Your task to perform on an android device: all mails in gmail Image 0: 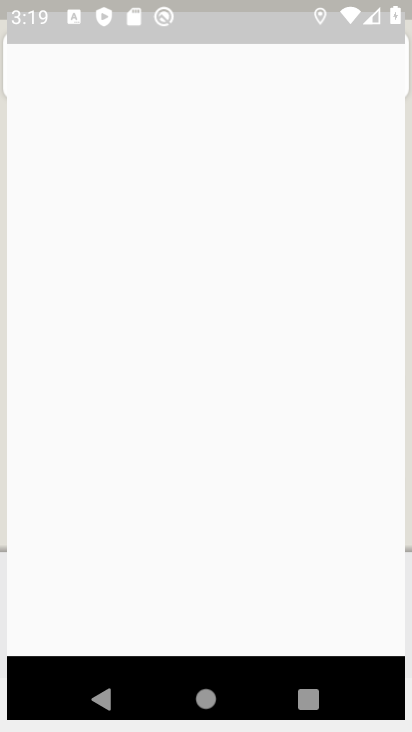
Step 0: press home button
Your task to perform on an android device: all mails in gmail Image 1: 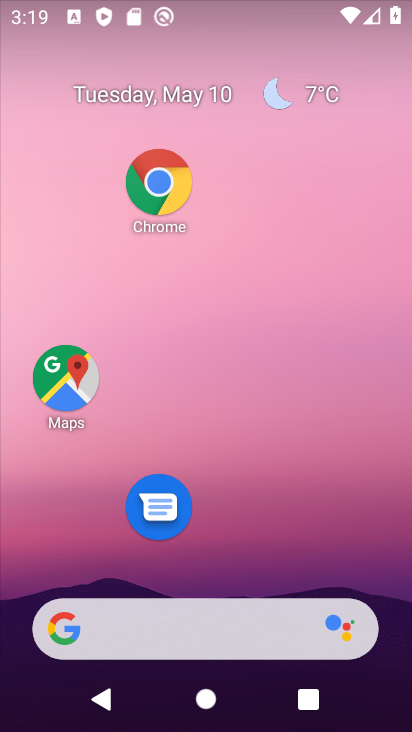
Step 1: drag from (35, 517) to (60, 222)
Your task to perform on an android device: all mails in gmail Image 2: 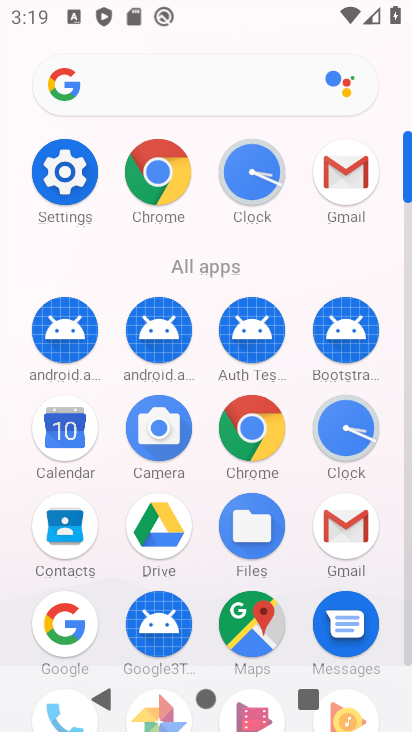
Step 2: click (354, 547)
Your task to perform on an android device: all mails in gmail Image 3: 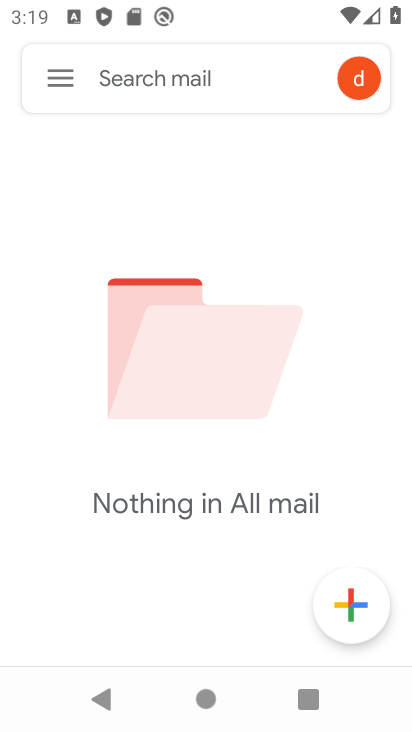
Step 3: click (77, 77)
Your task to perform on an android device: all mails in gmail Image 4: 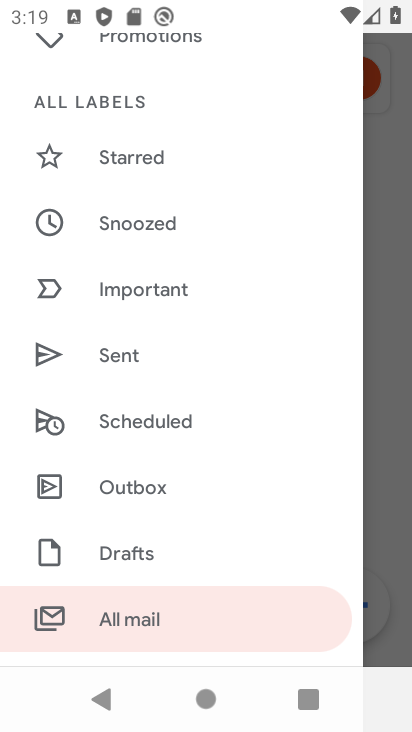
Step 4: task complete